Your task to perform on an android device: Go to Wikipedia Image 0: 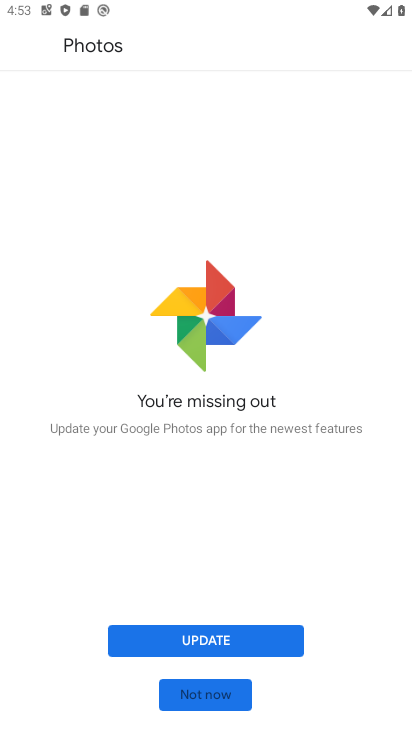
Step 0: press home button
Your task to perform on an android device: Go to Wikipedia Image 1: 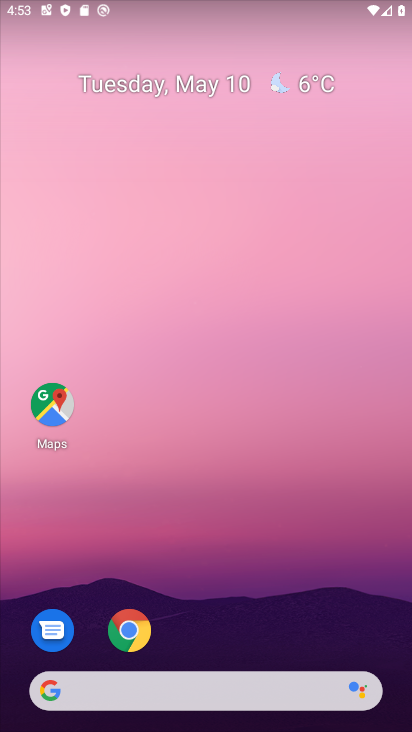
Step 1: click (127, 628)
Your task to perform on an android device: Go to Wikipedia Image 2: 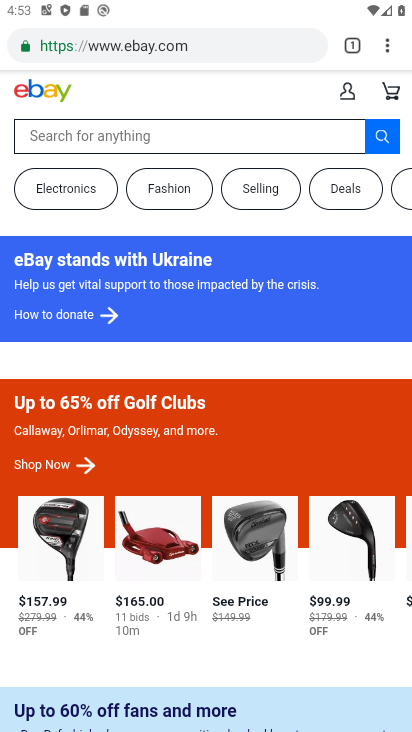
Step 2: click (152, 41)
Your task to perform on an android device: Go to Wikipedia Image 3: 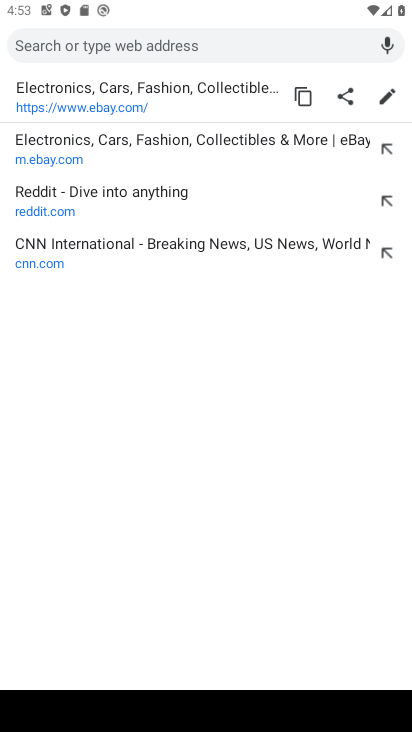
Step 3: type "wikipedia"
Your task to perform on an android device: Go to Wikipedia Image 4: 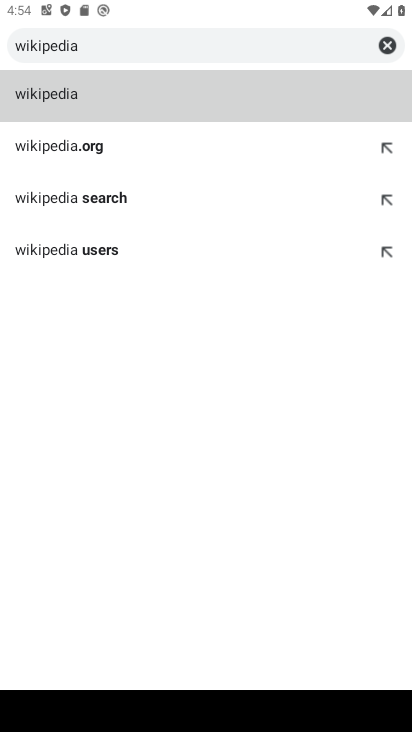
Step 4: click (60, 104)
Your task to perform on an android device: Go to Wikipedia Image 5: 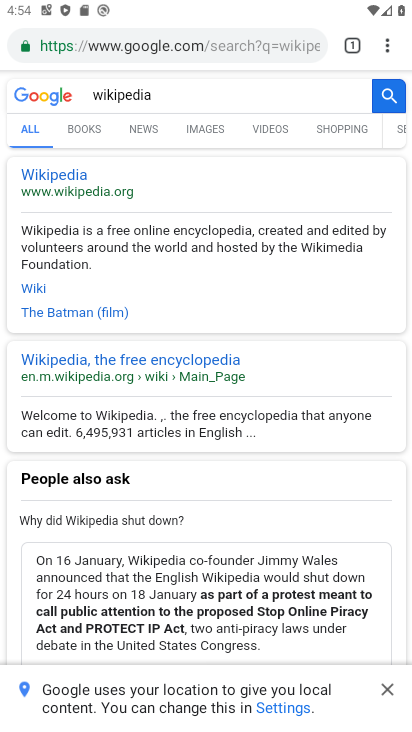
Step 5: click (73, 176)
Your task to perform on an android device: Go to Wikipedia Image 6: 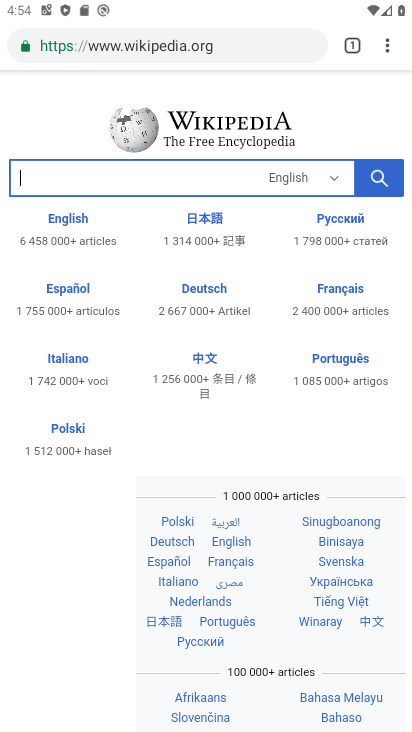
Step 6: task complete